Your task to perform on an android device: Go to Android settings Image 0: 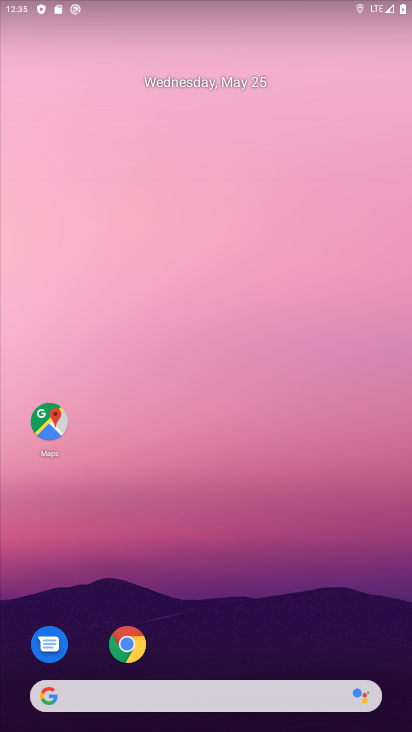
Step 0: drag from (261, 523) to (211, 59)
Your task to perform on an android device: Go to Android settings Image 1: 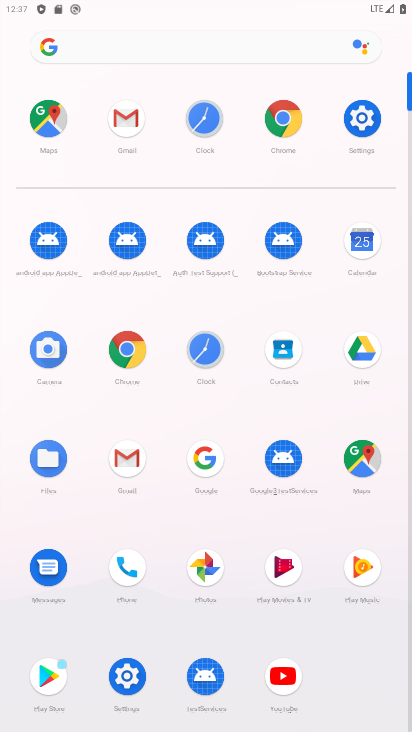
Step 1: click (356, 121)
Your task to perform on an android device: Go to Android settings Image 2: 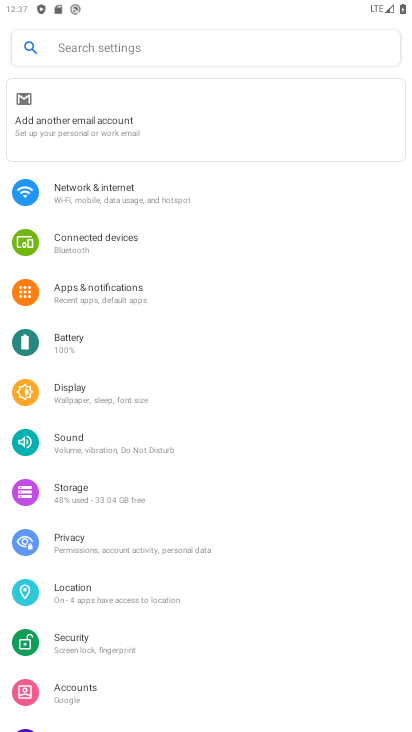
Step 2: task complete